Your task to perform on an android device: change notification settings in the gmail app Image 0: 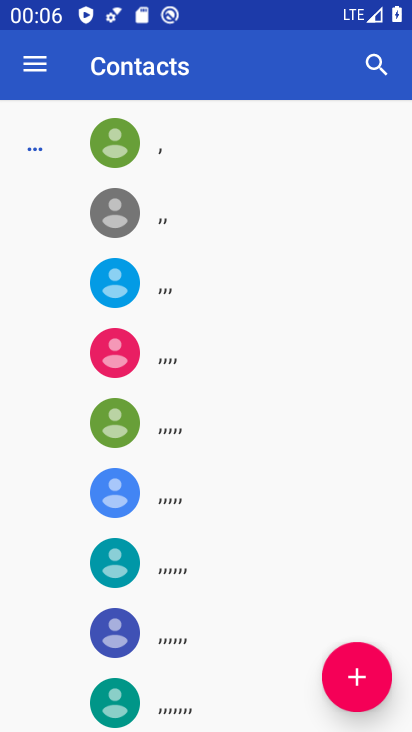
Step 0: press home button
Your task to perform on an android device: change notification settings in the gmail app Image 1: 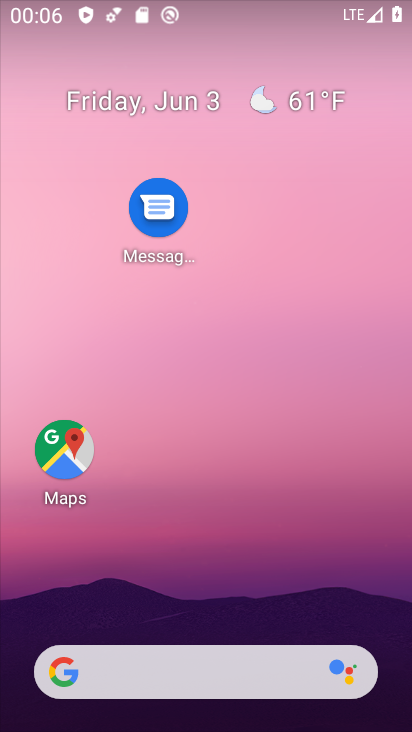
Step 1: drag from (231, 641) to (226, 31)
Your task to perform on an android device: change notification settings in the gmail app Image 2: 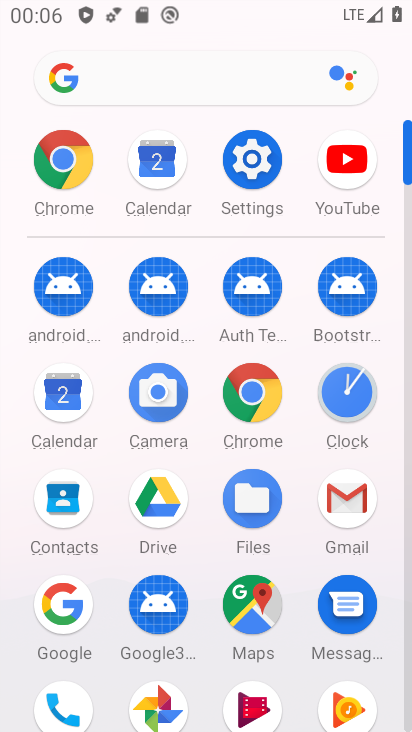
Step 2: click (355, 499)
Your task to perform on an android device: change notification settings in the gmail app Image 3: 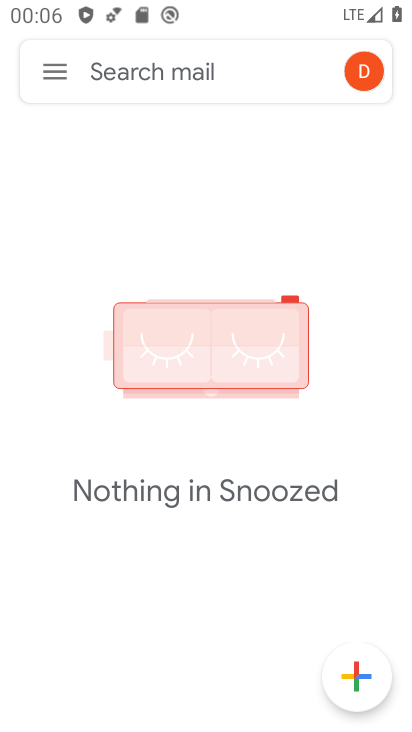
Step 3: click (57, 68)
Your task to perform on an android device: change notification settings in the gmail app Image 4: 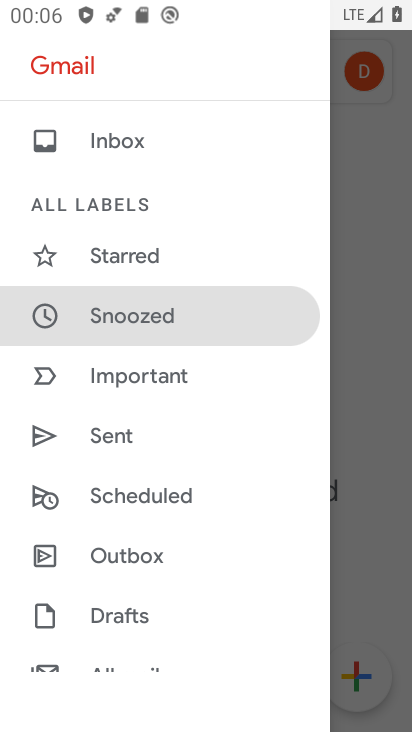
Step 4: drag from (56, 544) to (51, 117)
Your task to perform on an android device: change notification settings in the gmail app Image 5: 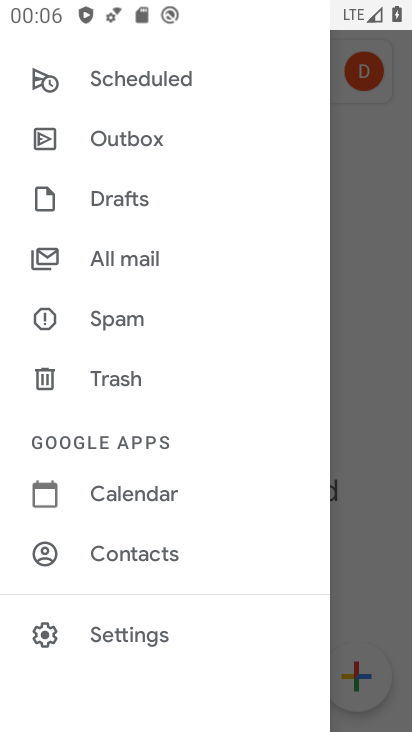
Step 5: click (56, 638)
Your task to perform on an android device: change notification settings in the gmail app Image 6: 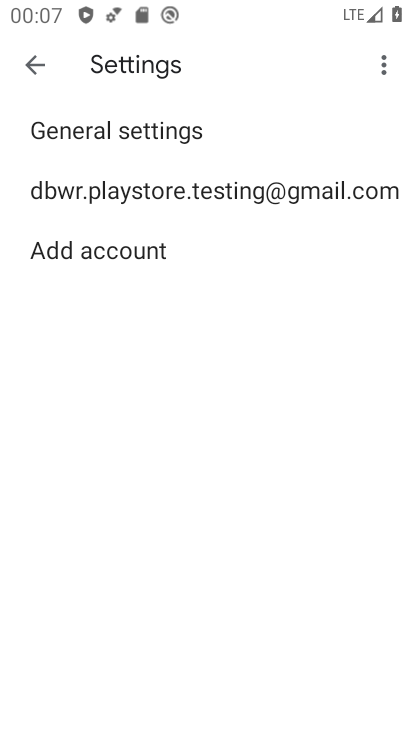
Step 6: click (74, 130)
Your task to perform on an android device: change notification settings in the gmail app Image 7: 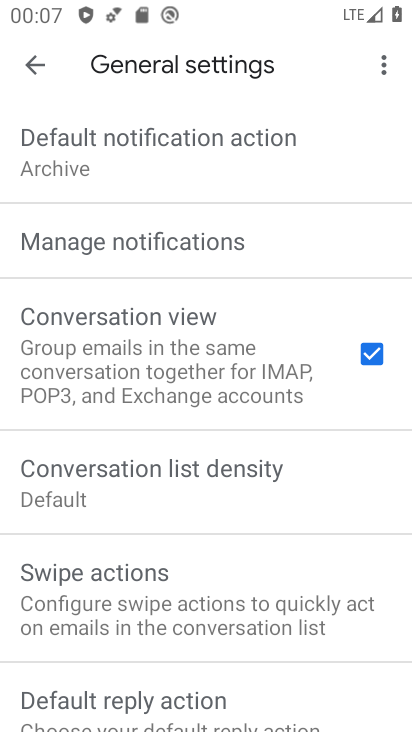
Step 7: click (97, 266)
Your task to perform on an android device: change notification settings in the gmail app Image 8: 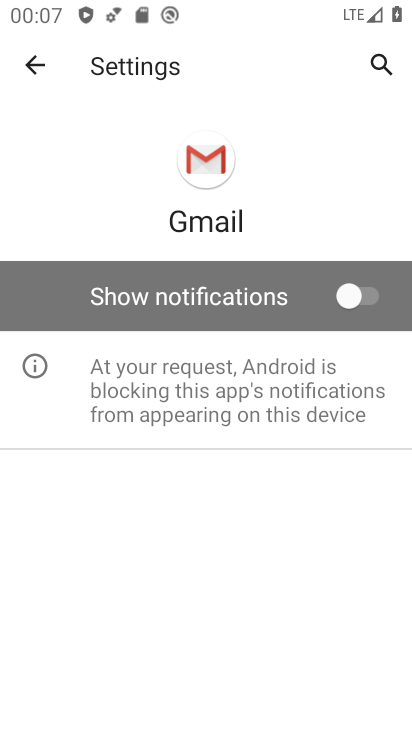
Step 8: click (351, 295)
Your task to perform on an android device: change notification settings in the gmail app Image 9: 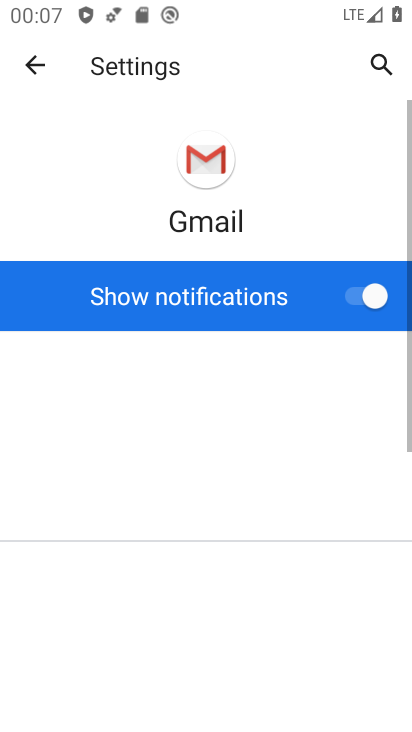
Step 9: task complete